Your task to perform on an android device: install app "Flipkart Online Shopping App" Image 0: 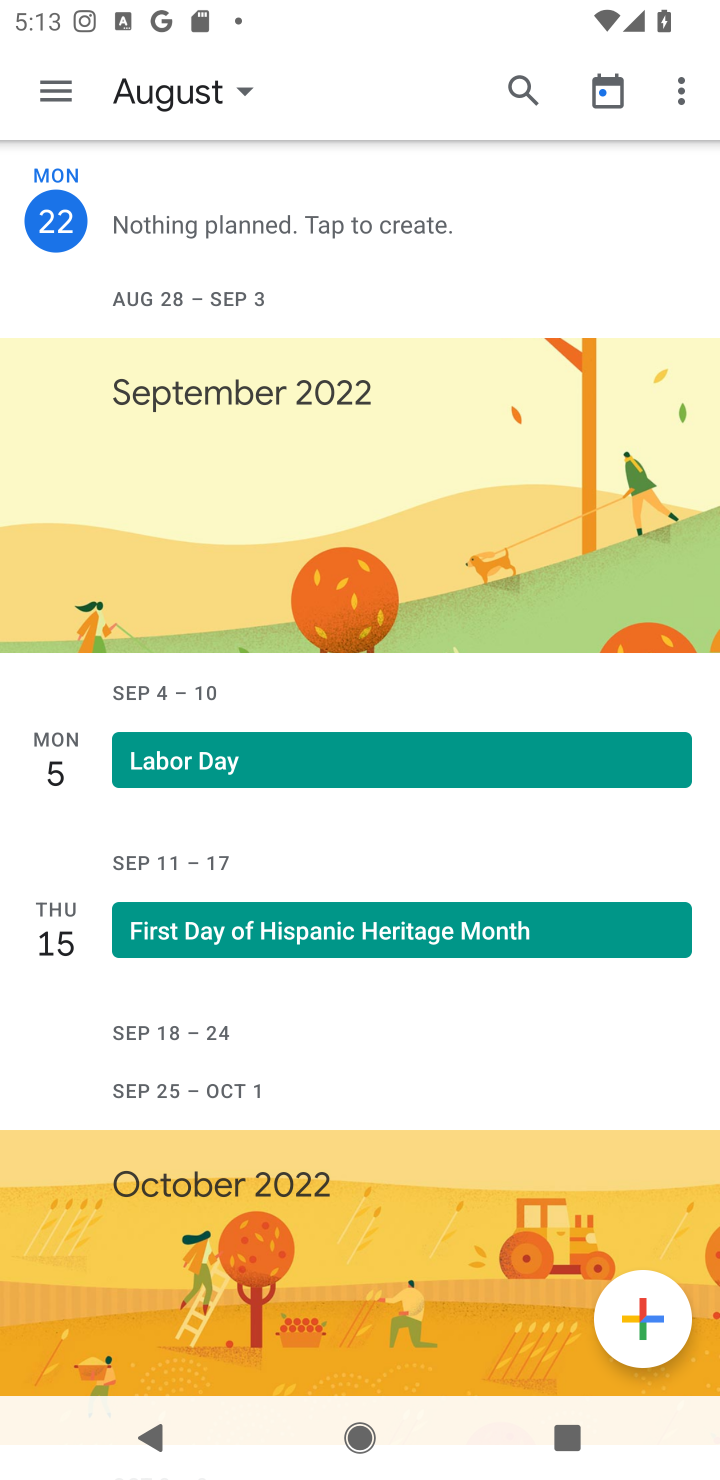
Step 0: press home button
Your task to perform on an android device: install app "Flipkart Online Shopping App" Image 1: 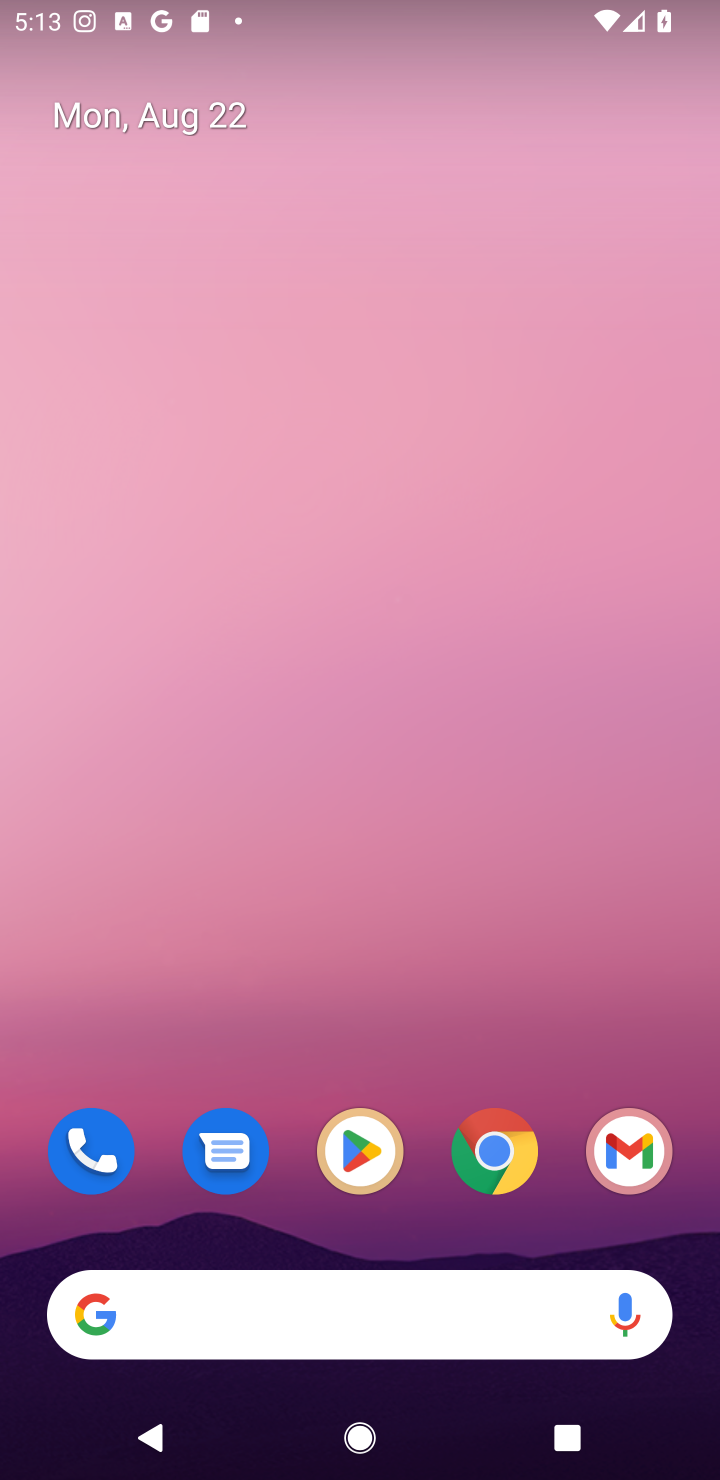
Step 1: click (344, 1130)
Your task to perform on an android device: install app "Flipkart Online Shopping App" Image 2: 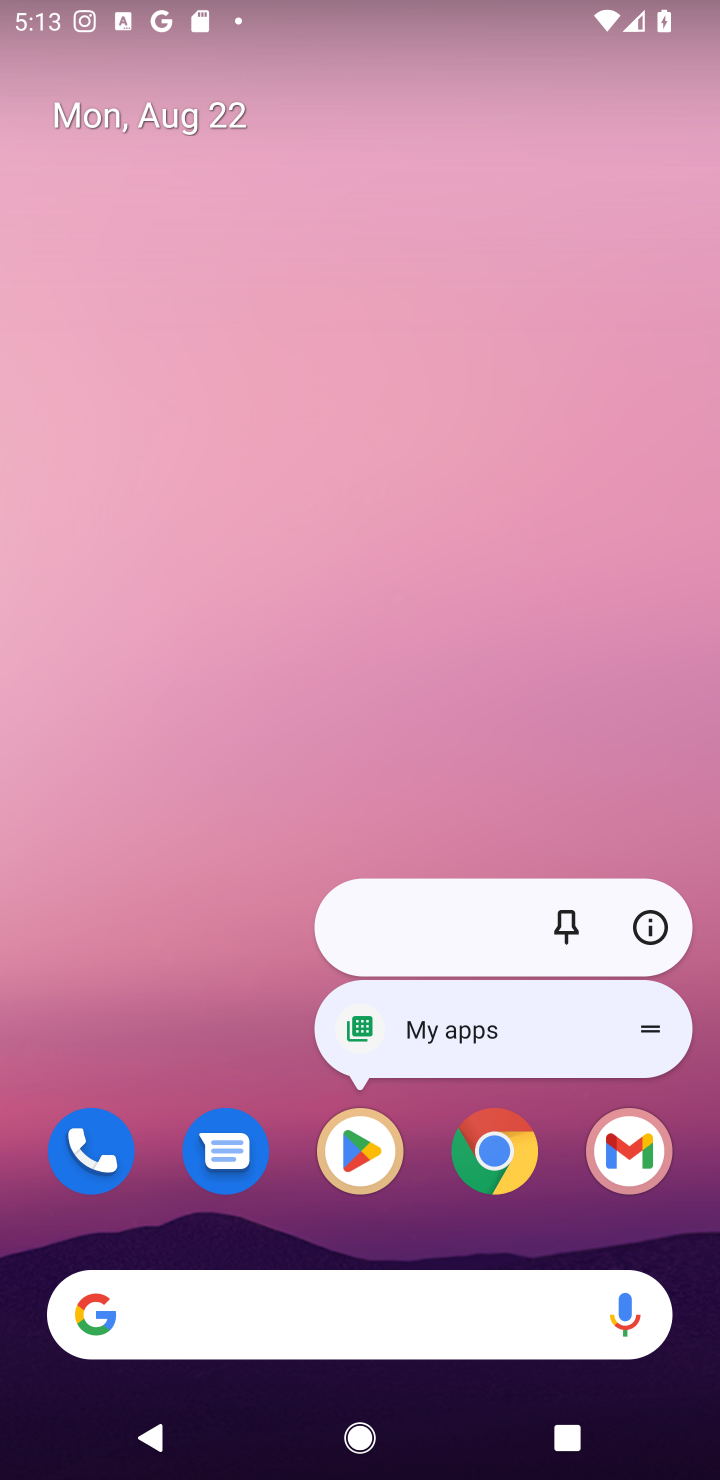
Step 2: click (344, 1132)
Your task to perform on an android device: install app "Flipkart Online Shopping App" Image 3: 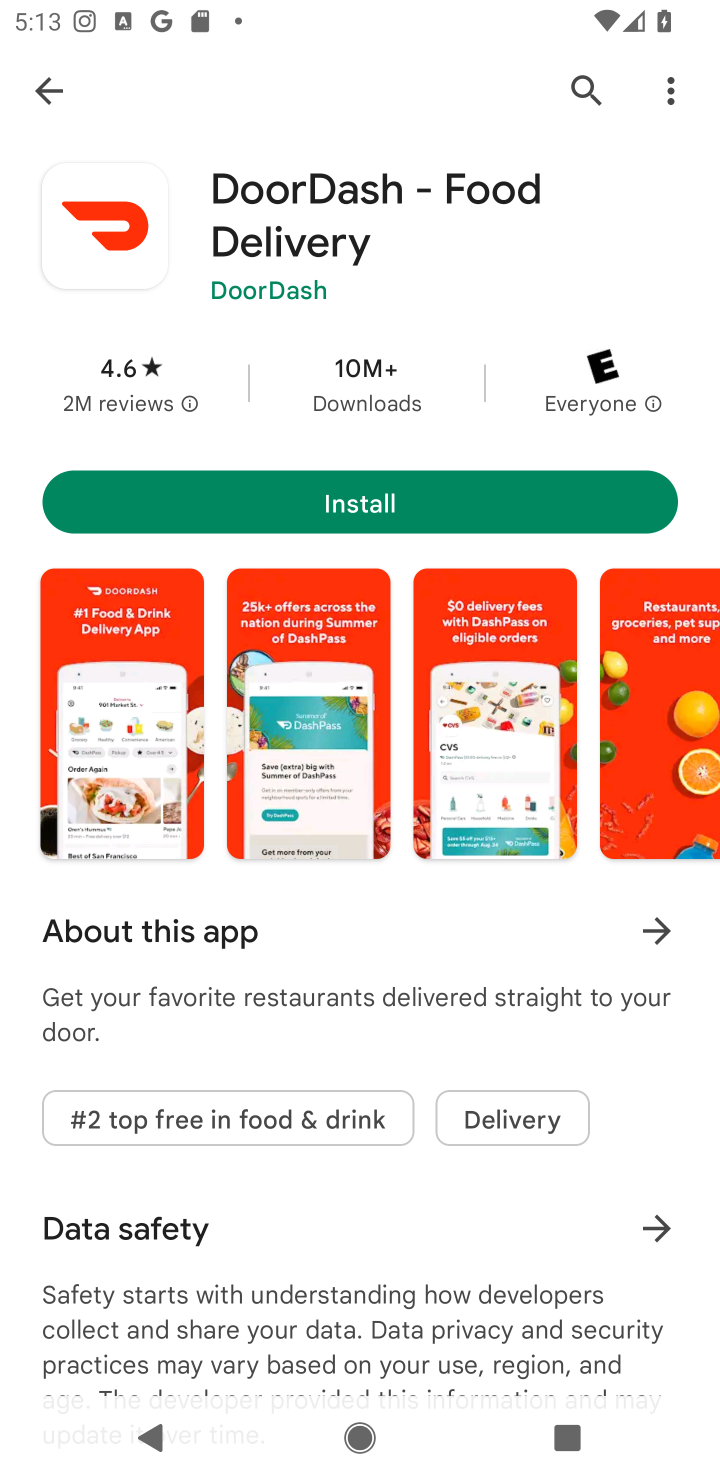
Step 3: click (579, 70)
Your task to perform on an android device: install app "Flipkart Online Shopping App" Image 4: 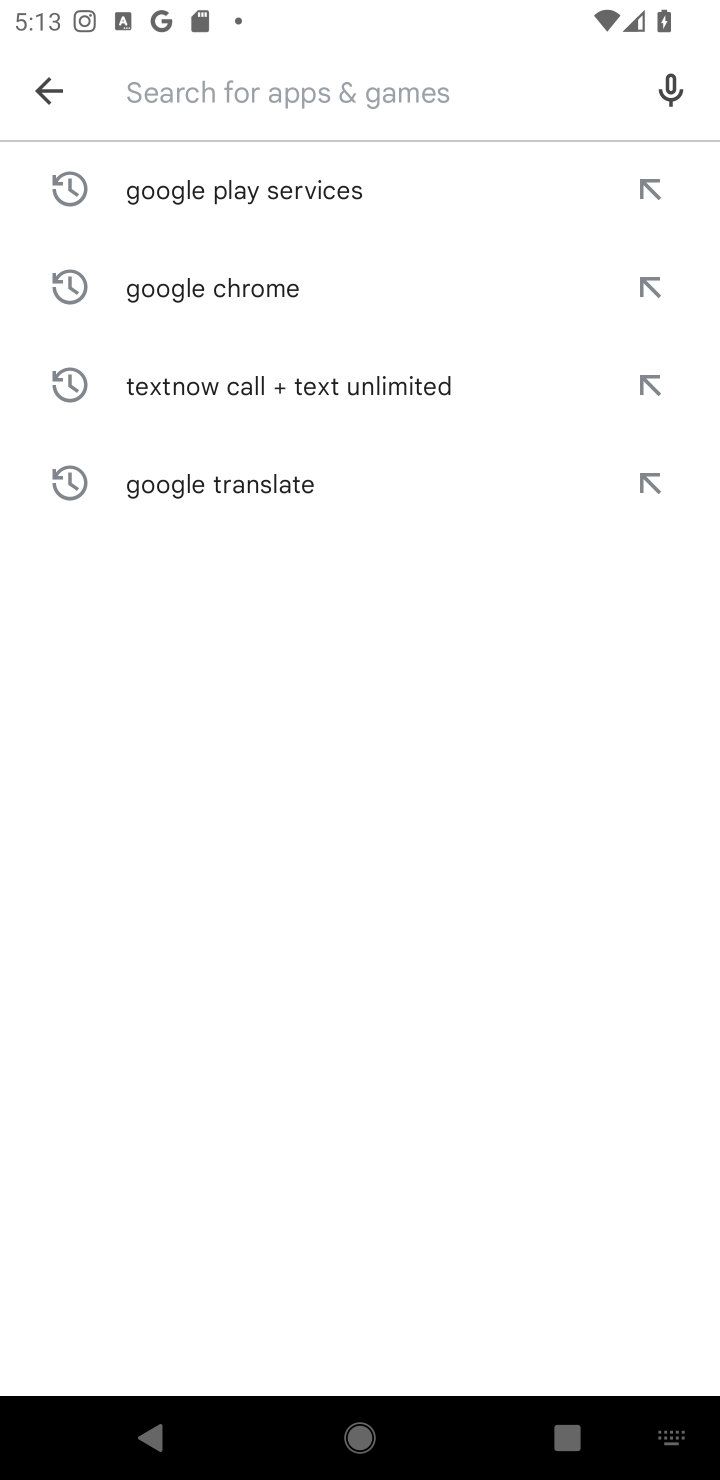
Step 4: type "Flipkart Online Shopping App"
Your task to perform on an android device: install app "Flipkart Online Shopping App" Image 5: 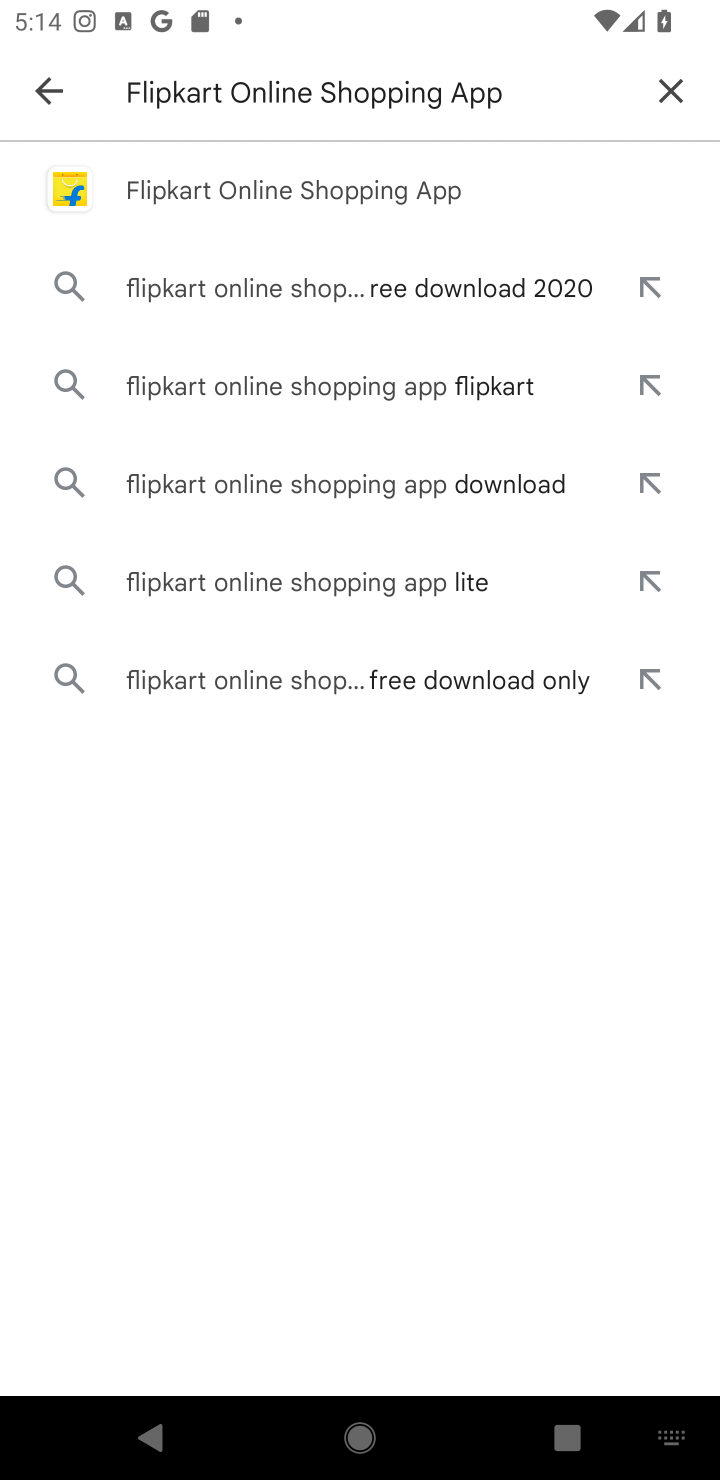
Step 5: click (402, 185)
Your task to perform on an android device: install app "Flipkart Online Shopping App" Image 6: 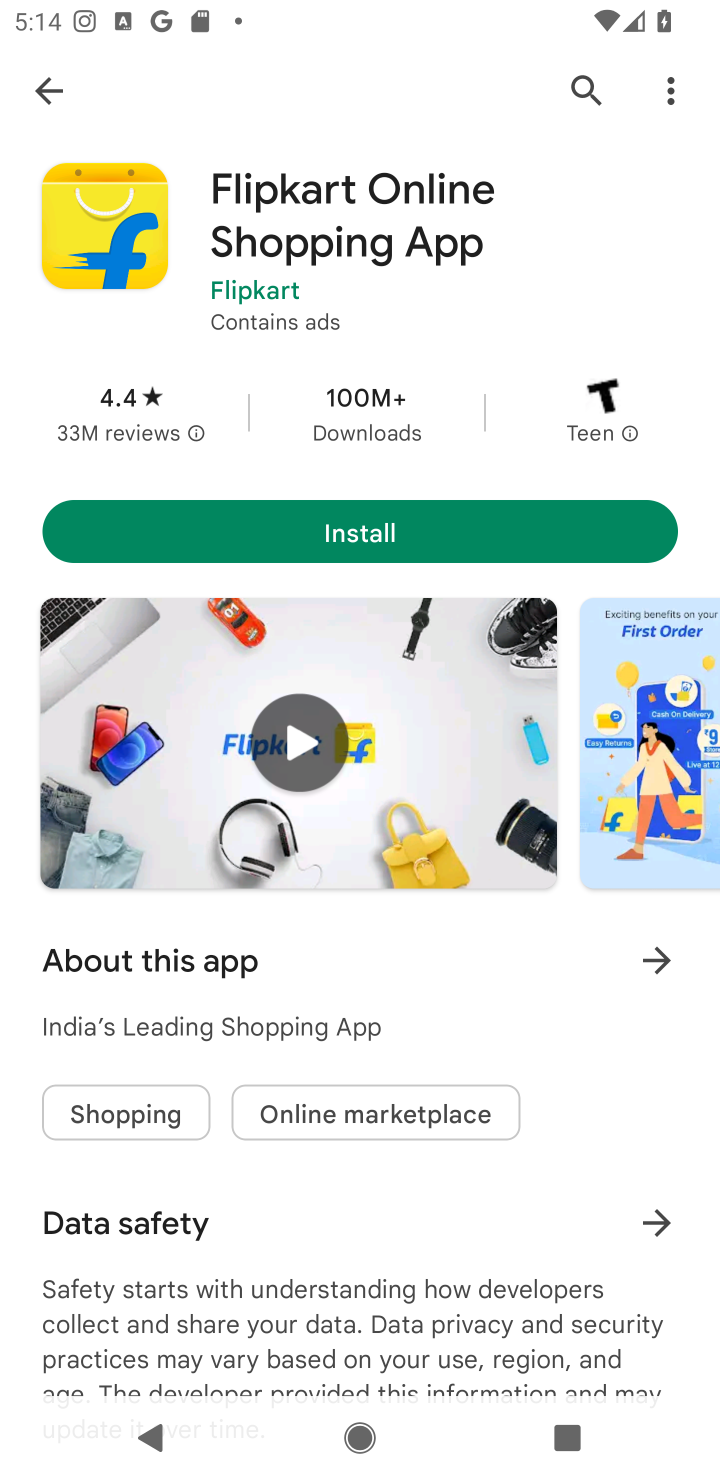
Step 6: click (362, 530)
Your task to perform on an android device: install app "Flipkart Online Shopping App" Image 7: 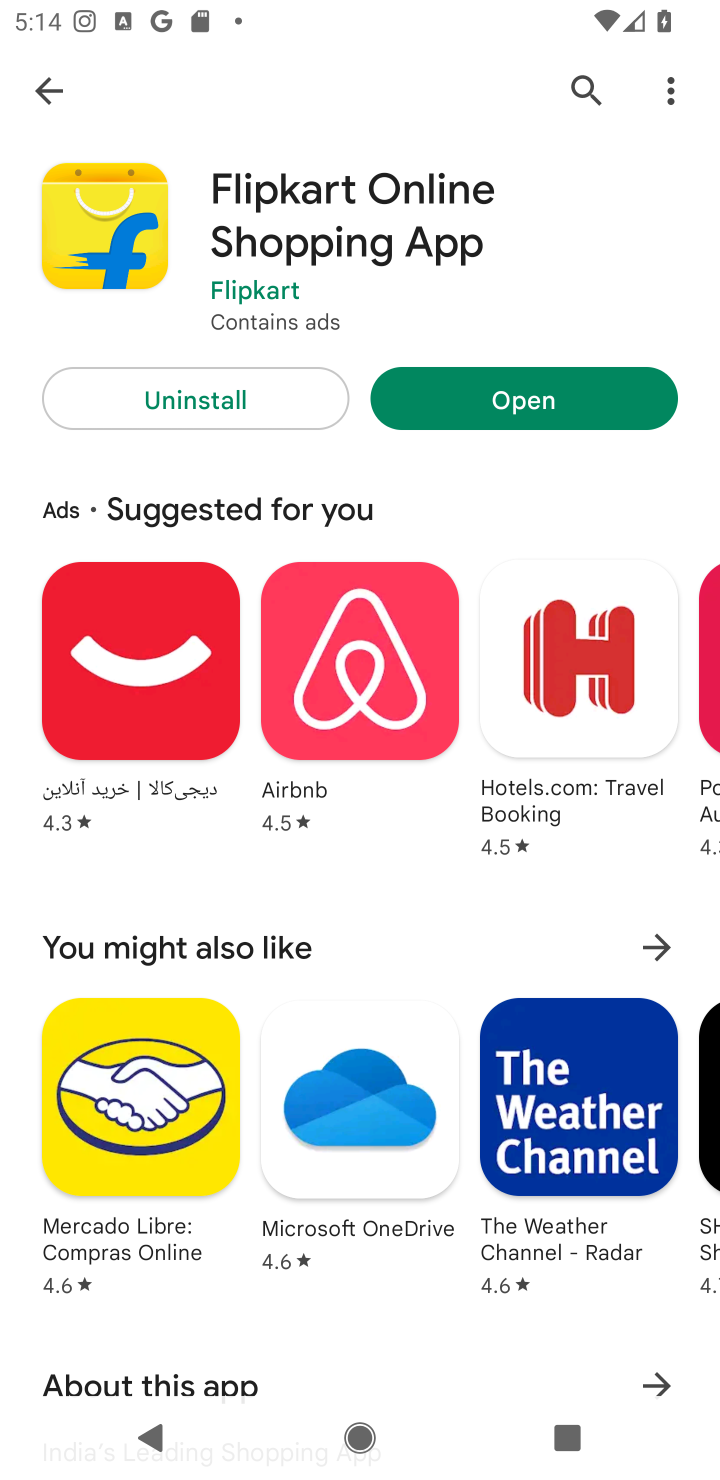
Step 7: task complete